Your task to perform on an android device: find photos in the google photos app Image 0: 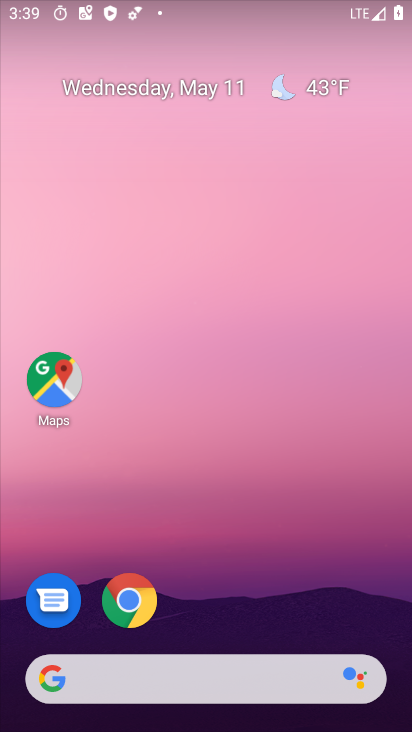
Step 0: drag from (332, 604) to (346, 1)
Your task to perform on an android device: find photos in the google photos app Image 1: 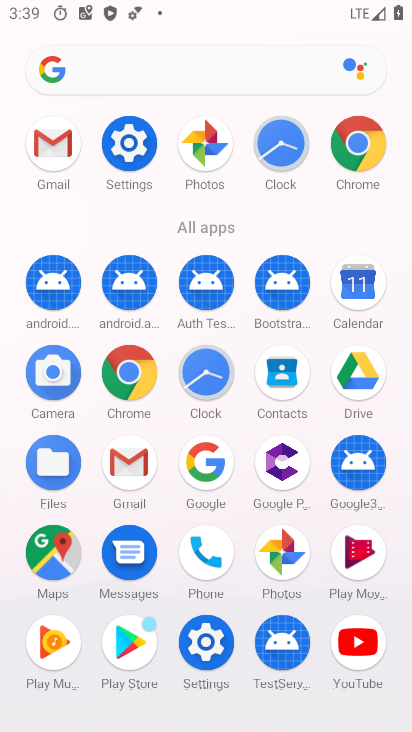
Step 1: click (211, 150)
Your task to perform on an android device: find photos in the google photos app Image 2: 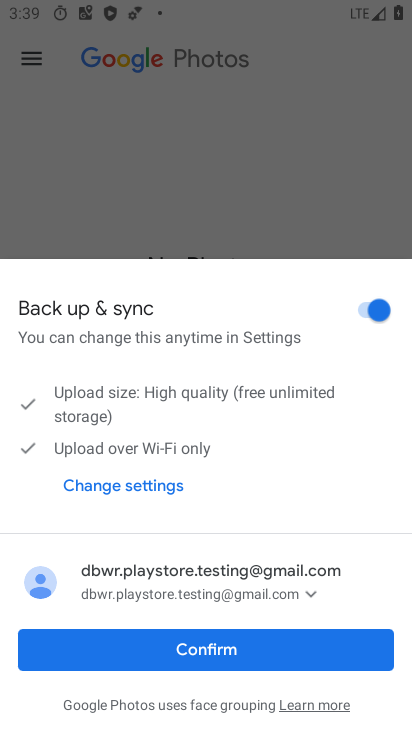
Step 2: click (210, 655)
Your task to perform on an android device: find photos in the google photos app Image 3: 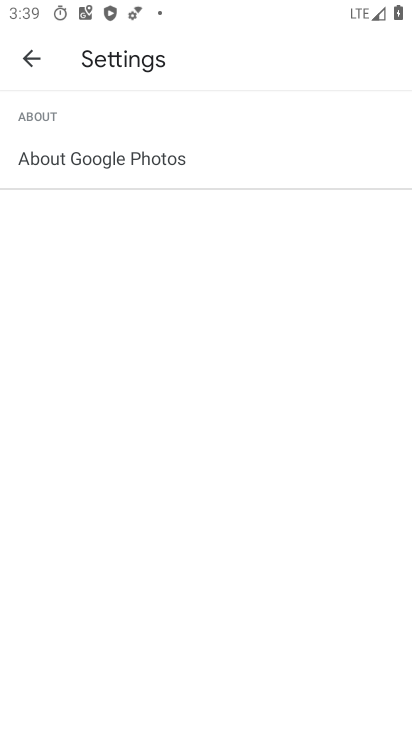
Step 3: click (25, 58)
Your task to perform on an android device: find photos in the google photos app Image 4: 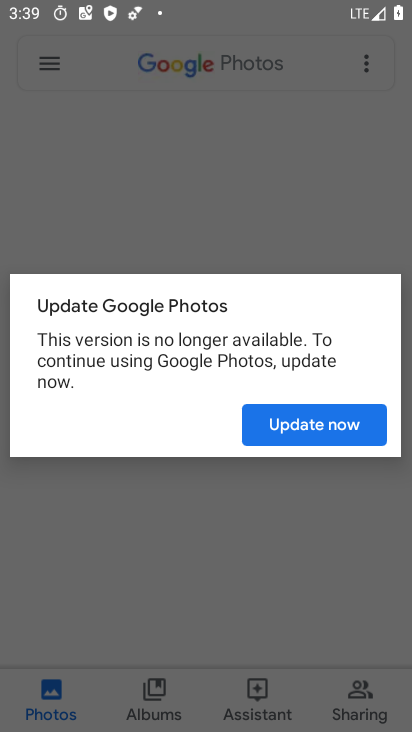
Step 4: click (337, 424)
Your task to perform on an android device: find photos in the google photos app Image 5: 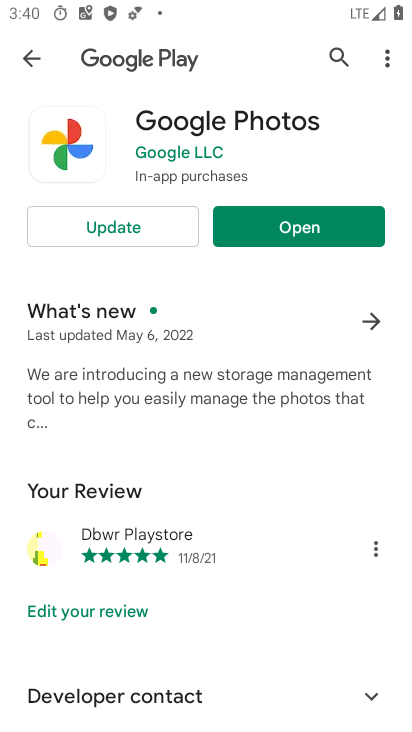
Step 5: click (275, 225)
Your task to perform on an android device: find photos in the google photos app Image 6: 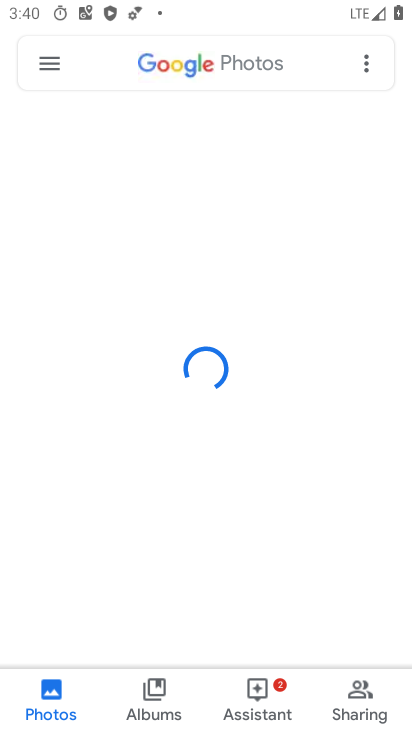
Step 6: click (59, 702)
Your task to perform on an android device: find photos in the google photos app Image 7: 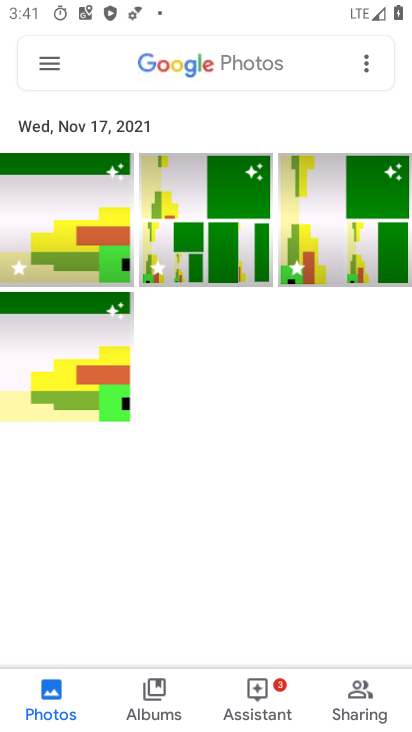
Step 7: task complete